Your task to perform on an android device: When is my next appointment? Image 0: 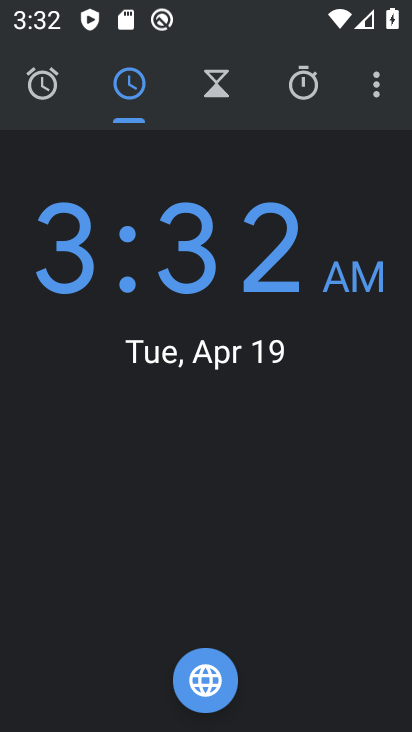
Step 0: press home button
Your task to perform on an android device: When is my next appointment? Image 1: 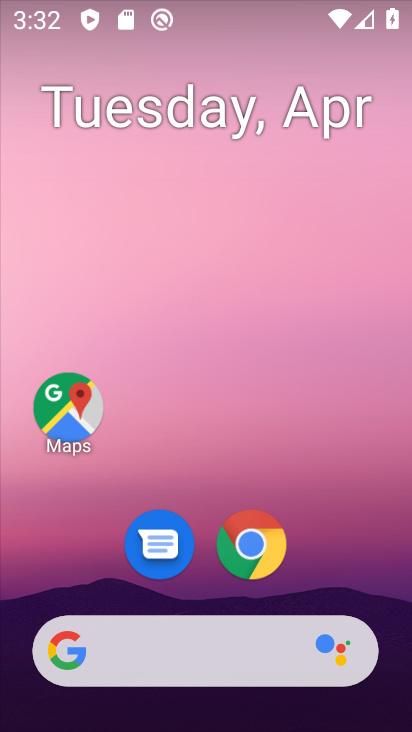
Step 1: drag from (298, 554) to (299, 180)
Your task to perform on an android device: When is my next appointment? Image 2: 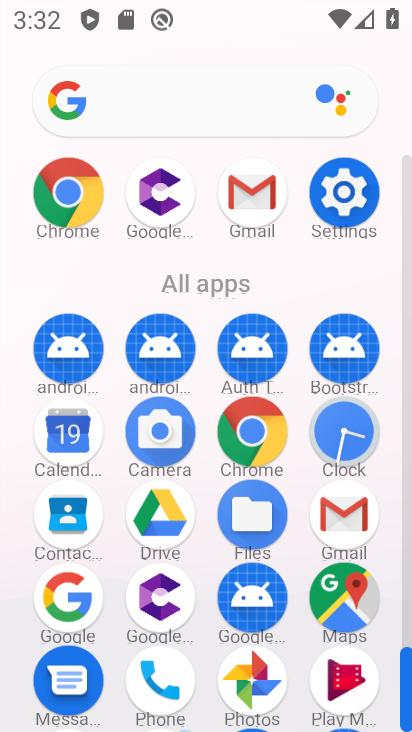
Step 2: click (40, 440)
Your task to perform on an android device: When is my next appointment? Image 3: 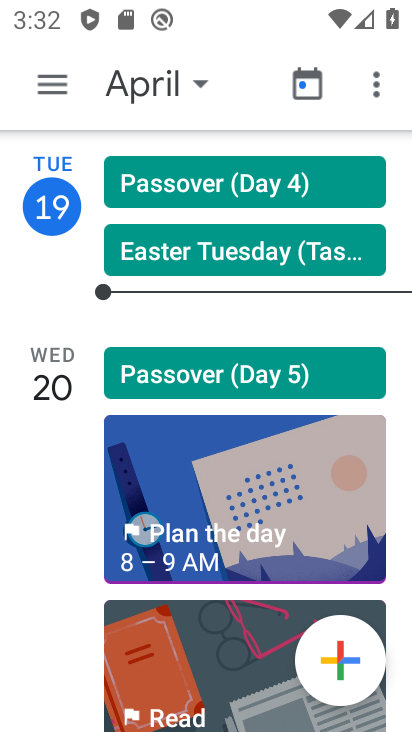
Step 3: click (193, 86)
Your task to perform on an android device: When is my next appointment? Image 4: 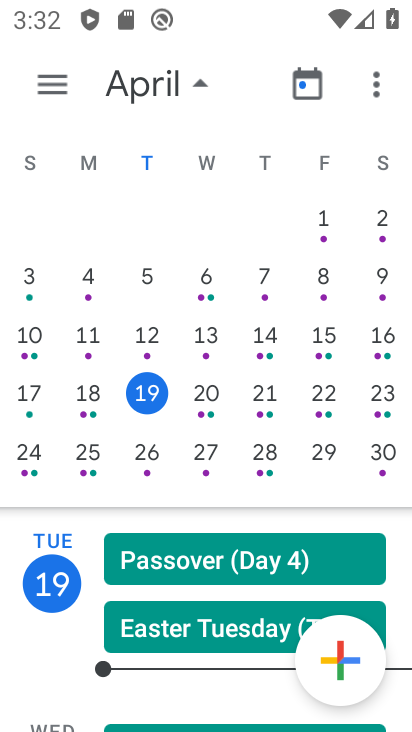
Step 4: click (201, 419)
Your task to perform on an android device: When is my next appointment? Image 5: 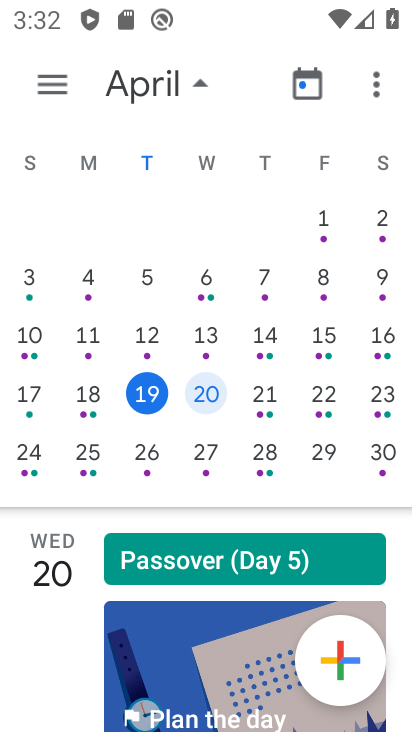
Step 5: click (270, 401)
Your task to perform on an android device: When is my next appointment? Image 6: 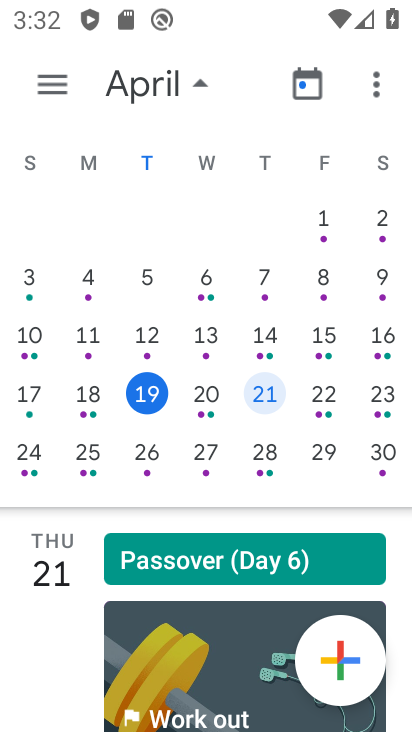
Step 6: drag from (316, 395) to (278, 532)
Your task to perform on an android device: When is my next appointment? Image 7: 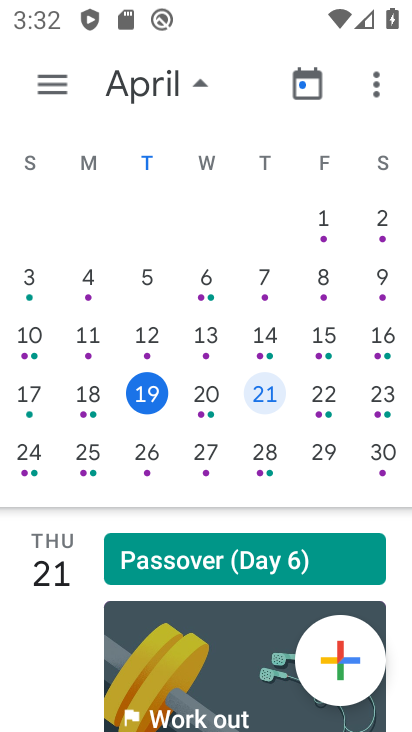
Step 7: drag from (254, 496) to (251, 327)
Your task to perform on an android device: When is my next appointment? Image 8: 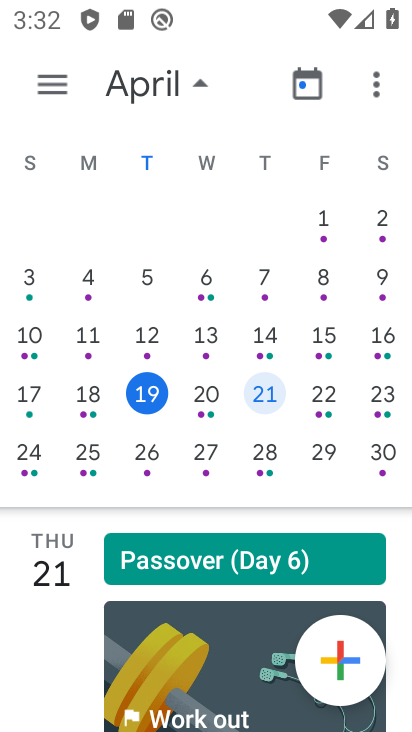
Step 8: drag from (279, 496) to (282, 371)
Your task to perform on an android device: When is my next appointment? Image 9: 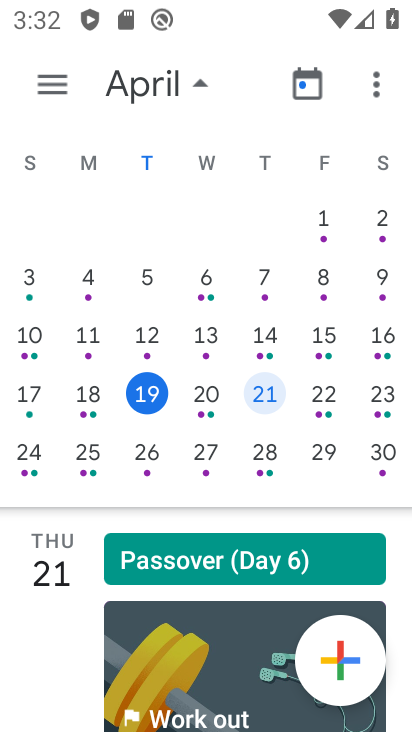
Step 9: click (330, 405)
Your task to perform on an android device: When is my next appointment? Image 10: 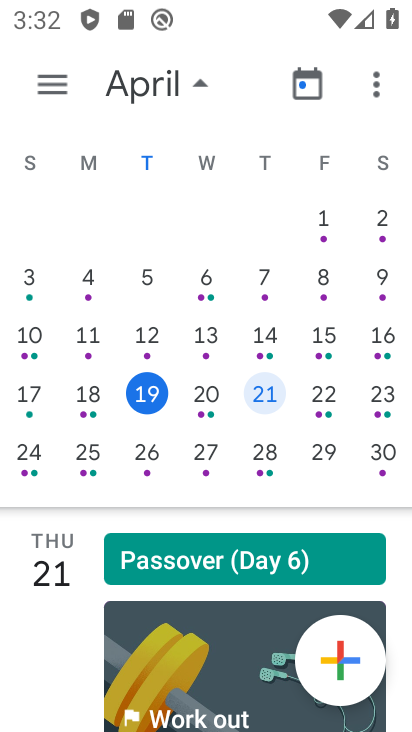
Step 10: click (328, 416)
Your task to perform on an android device: When is my next appointment? Image 11: 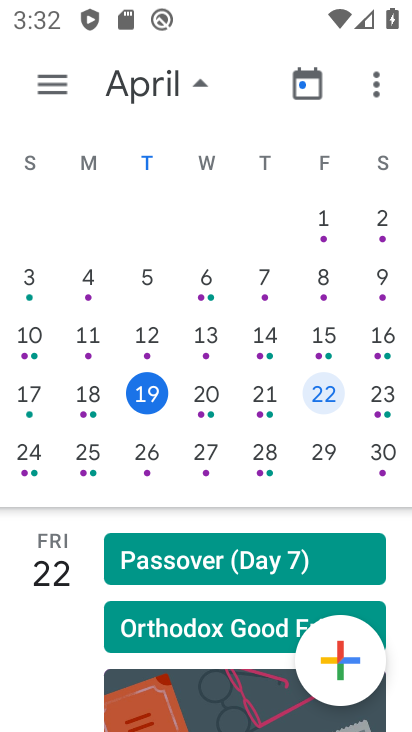
Step 11: click (381, 421)
Your task to perform on an android device: When is my next appointment? Image 12: 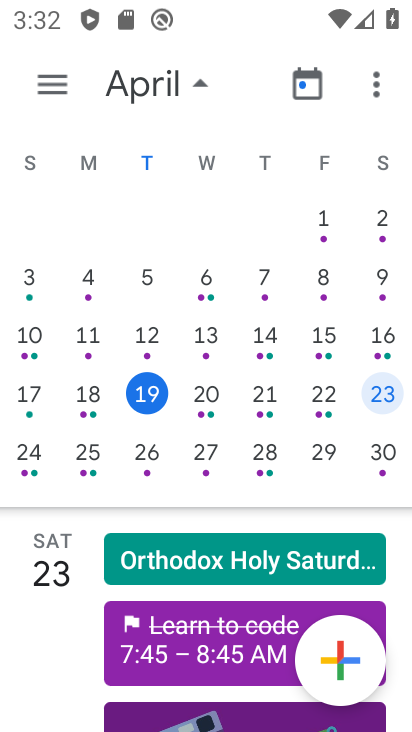
Step 12: task complete